Your task to perform on an android device: Go to accessibility settings Image 0: 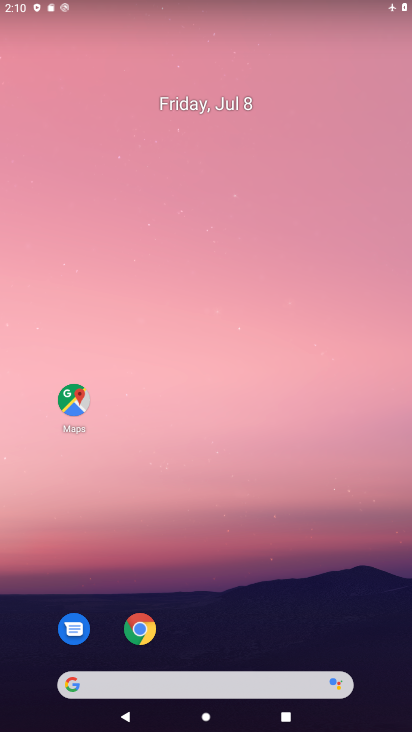
Step 0: drag from (212, 336) to (139, 35)
Your task to perform on an android device: Go to accessibility settings Image 1: 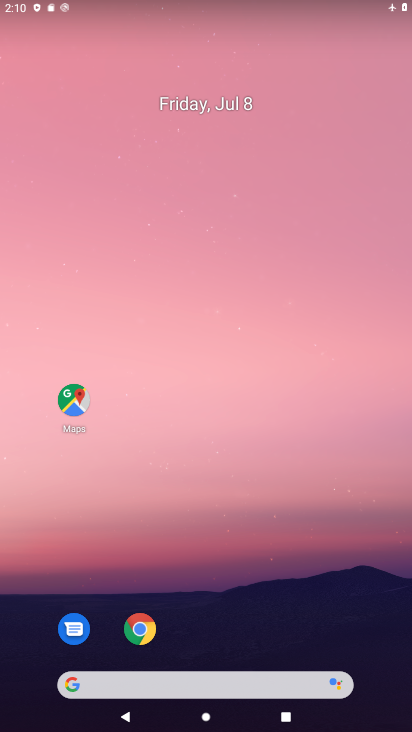
Step 1: drag from (287, 30) to (379, 102)
Your task to perform on an android device: Go to accessibility settings Image 2: 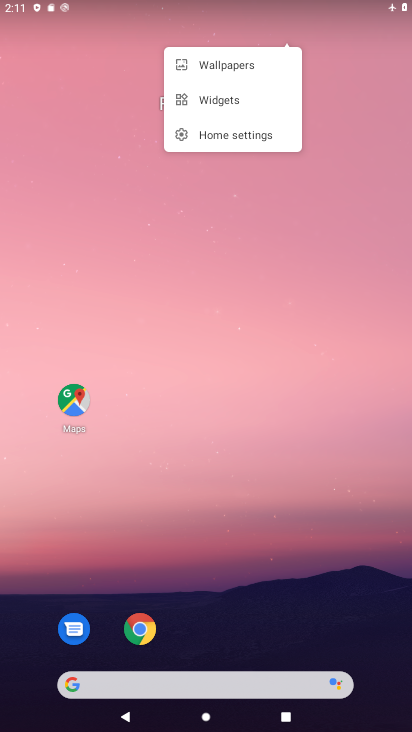
Step 2: drag from (69, 521) to (321, 9)
Your task to perform on an android device: Go to accessibility settings Image 3: 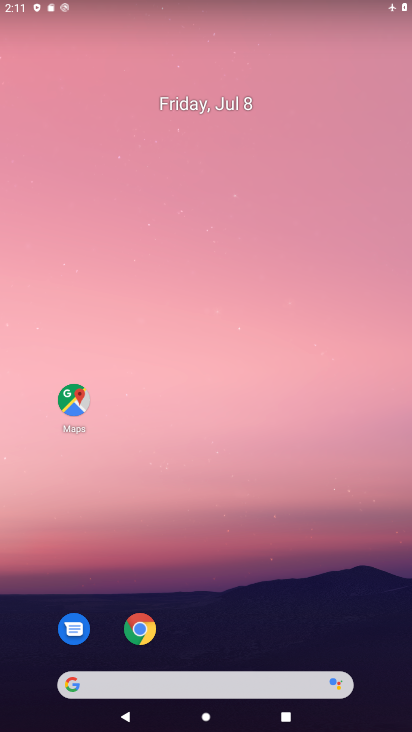
Step 3: drag from (43, 705) to (346, 0)
Your task to perform on an android device: Go to accessibility settings Image 4: 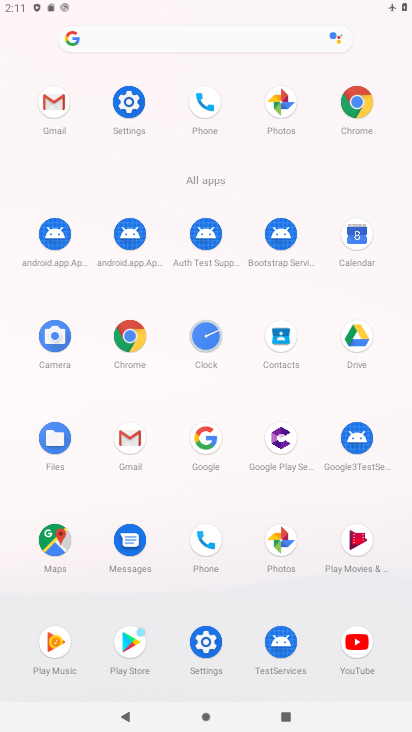
Step 4: click (210, 649)
Your task to perform on an android device: Go to accessibility settings Image 5: 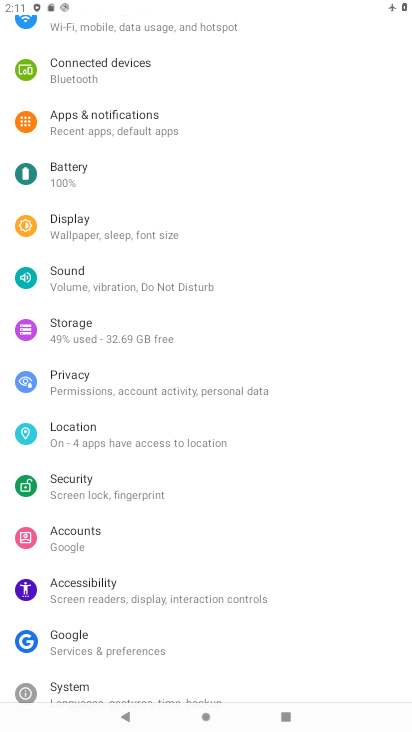
Step 5: click (117, 590)
Your task to perform on an android device: Go to accessibility settings Image 6: 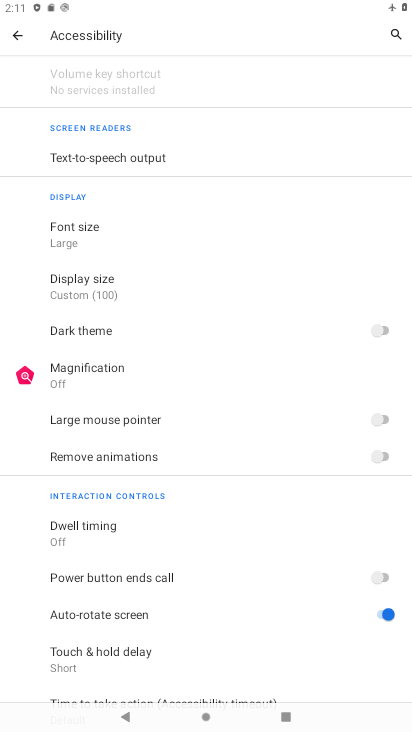
Step 6: task complete